Your task to perform on an android device: Go to ESPN.com Image 0: 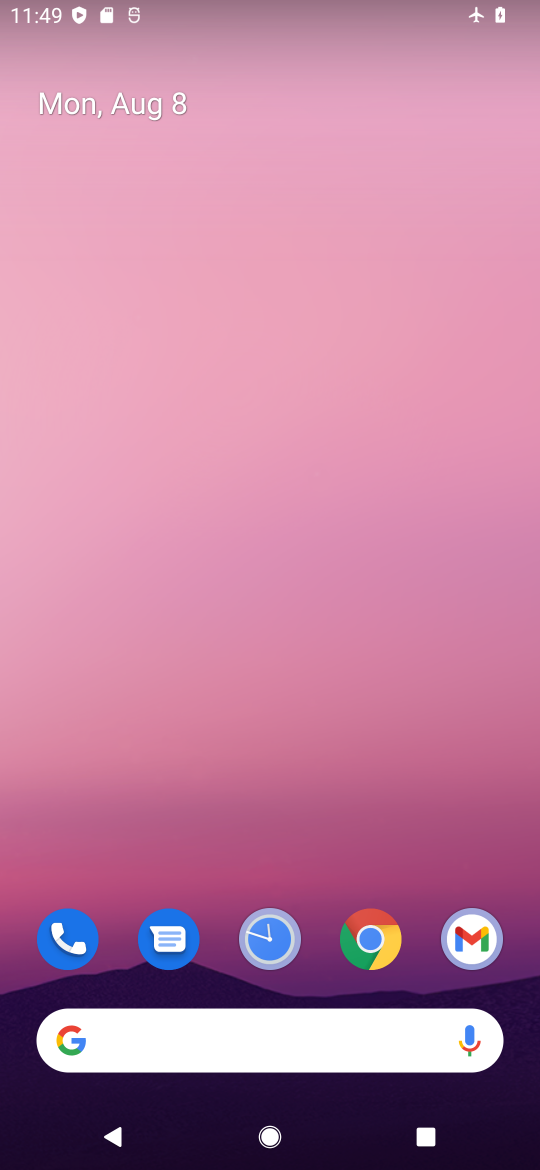
Step 0: click (373, 941)
Your task to perform on an android device: Go to ESPN.com Image 1: 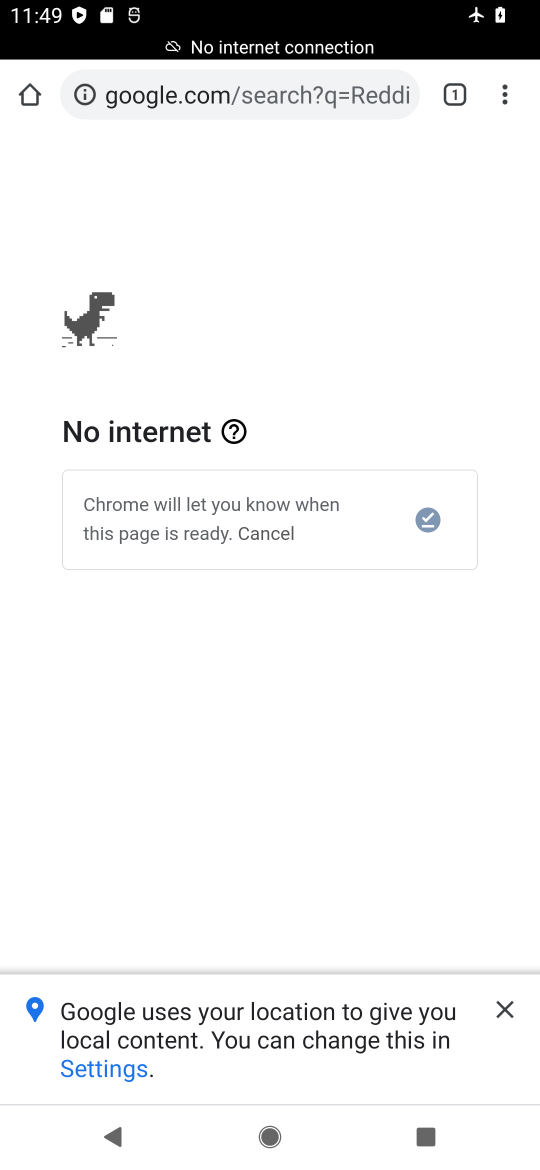
Step 1: click (354, 93)
Your task to perform on an android device: Go to ESPN.com Image 2: 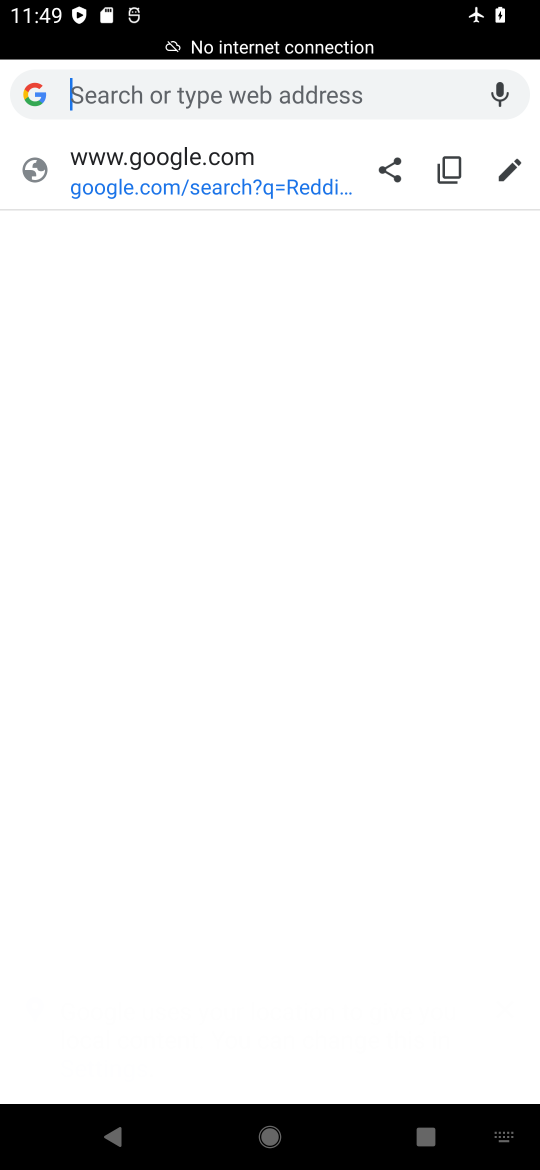
Step 2: type "ESPN.com"
Your task to perform on an android device: Go to ESPN.com Image 3: 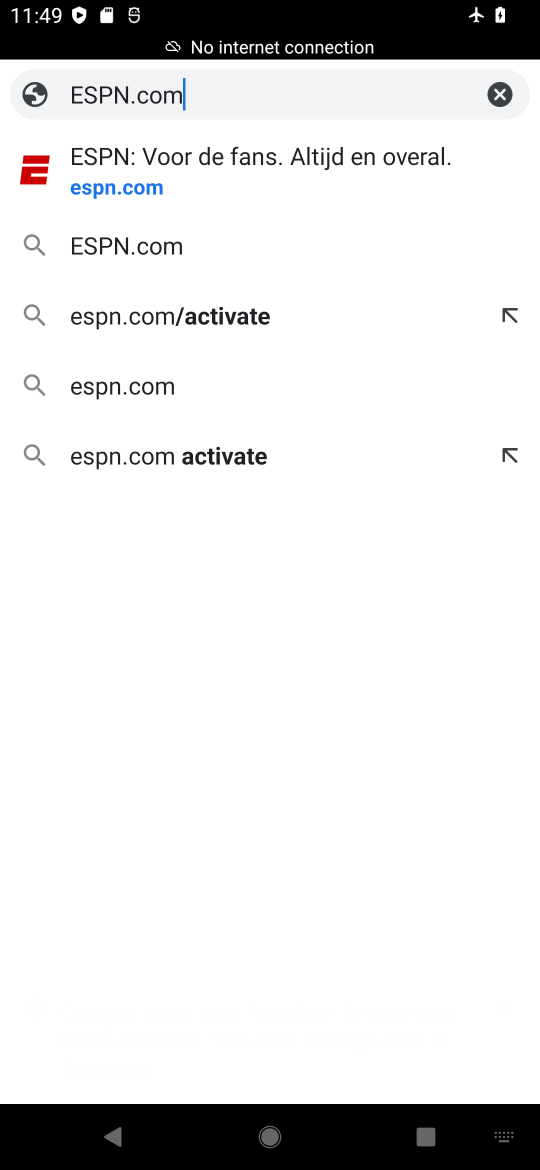
Step 3: click (122, 248)
Your task to perform on an android device: Go to ESPN.com Image 4: 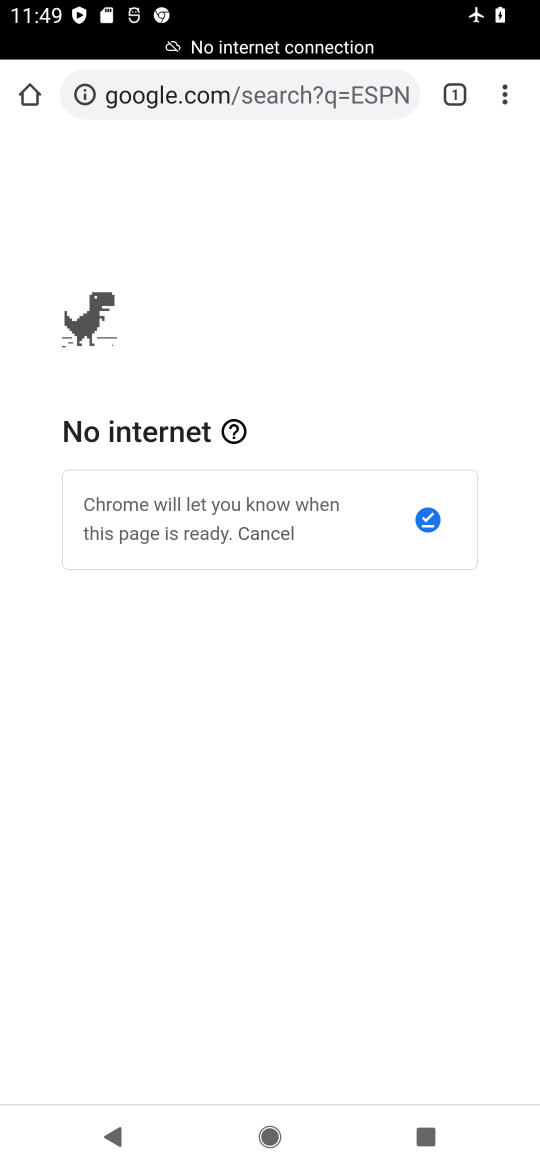
Step 4: task complete